Your task to perform on an android device: open a new tab in the chrome app Image 0: 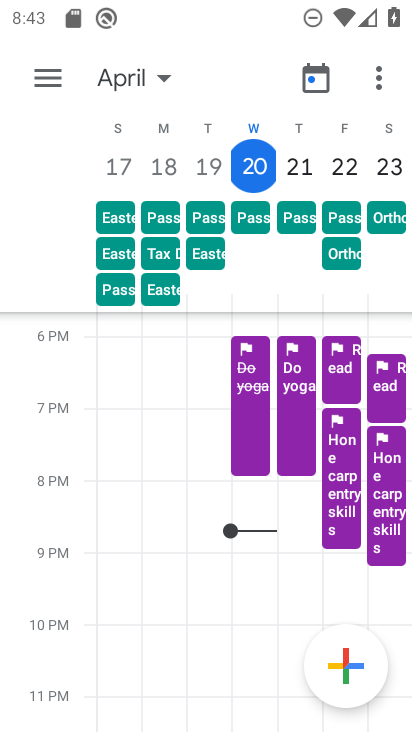
Step 0: press home button
Your task to perform on an android device: open a new tab in the chrome app Image 1: 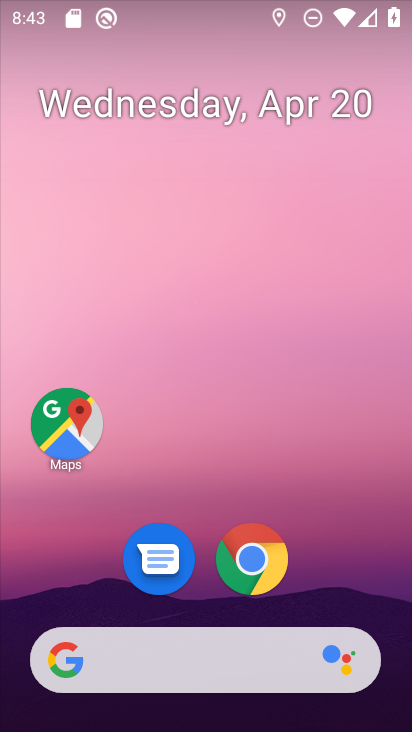
Step 1: click (252, 558)
Your task to perform on an android device: open a new tab in the chrome app Image 2: 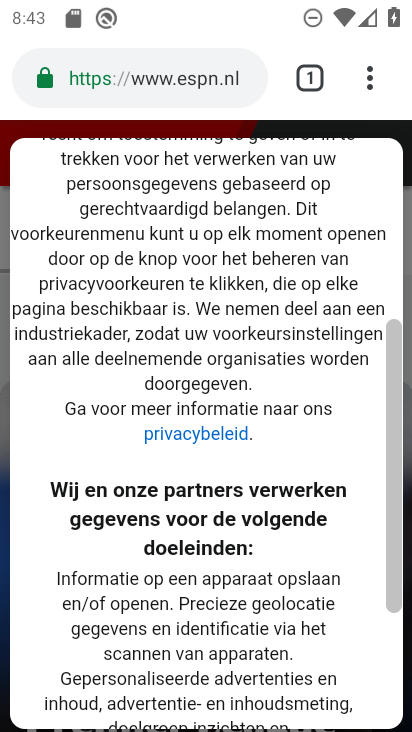
Step 2: click (368, 84)
Your task to perform on an android device: open a new tab in the chrome app Image 3: 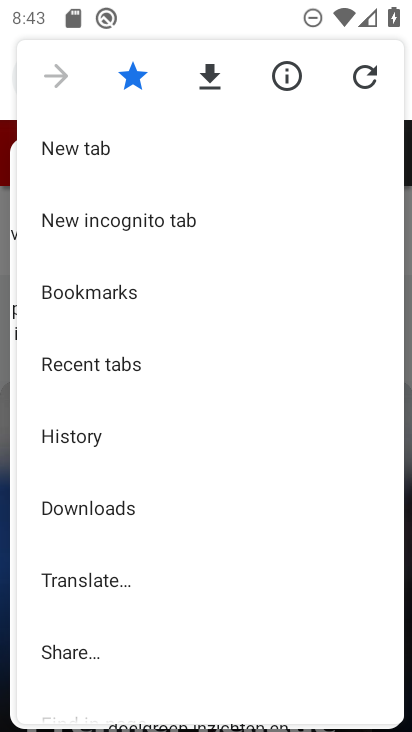
Step 3: click (61, 141)
Your task to perform on an android device: open a new tab in the chrome app Image 4: 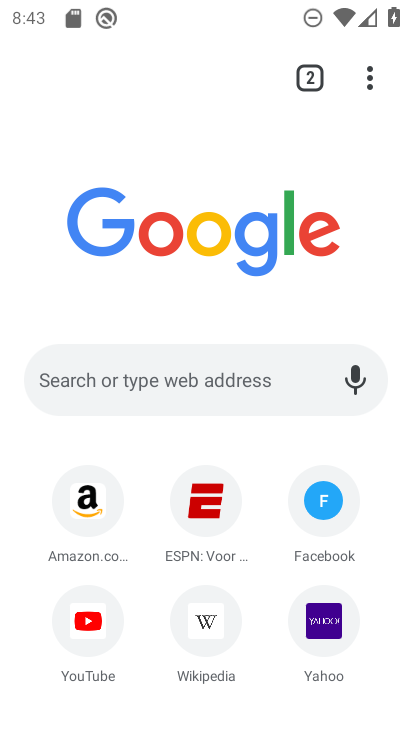
Step 4: task complete